Your task to perform on an android device: see tabs open on other devices in the chrome app Image 0: 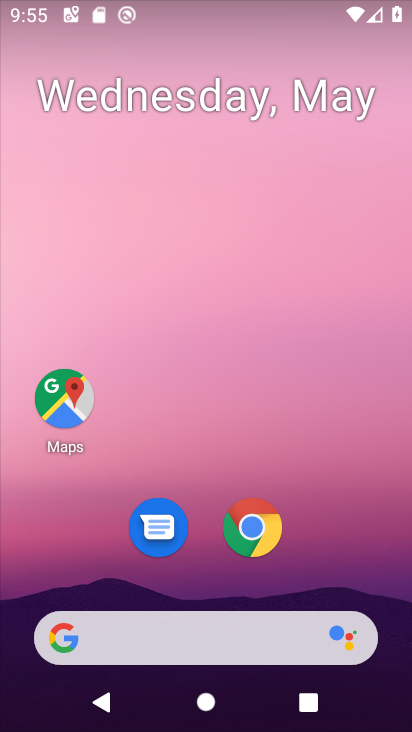
Step 0: click (261, 537)
Your task to perform on an android device: see tabs open on other devices in the chrome app Image 1: 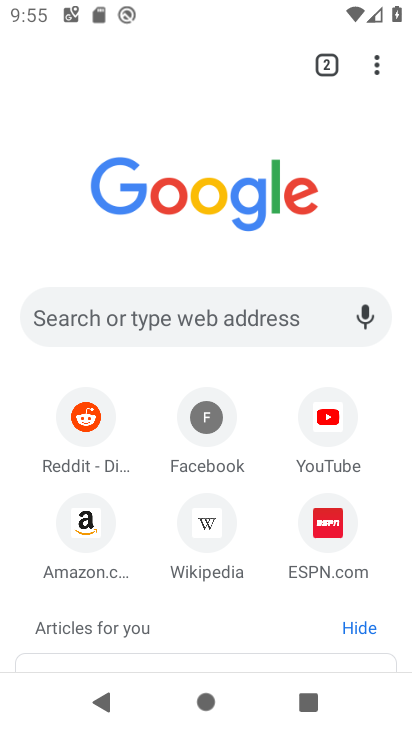
Step 1: click (324, 66)
Your task to perform on an android device: see tabs open on other devices in the chrome app Image 2: 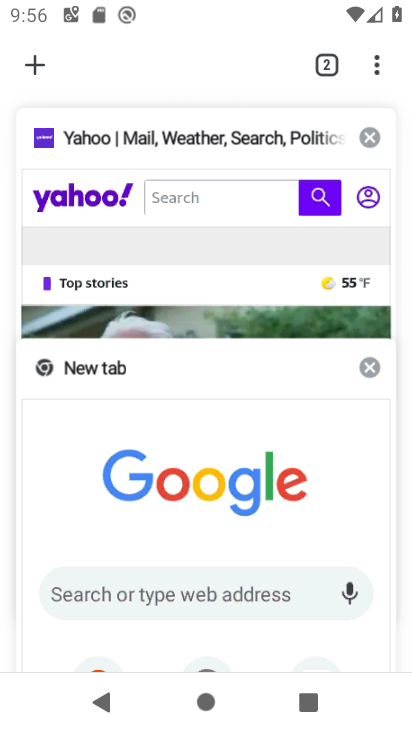
Step 2: task complete